Your task to perform on an android device: Check the news Image 0: 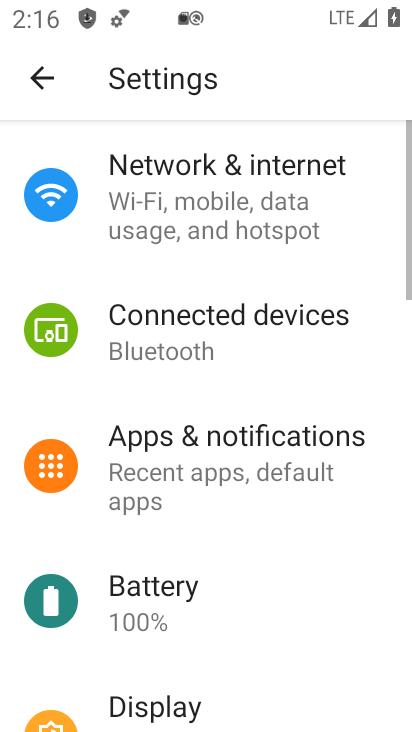
Step 0: press home button
Your task to perform on an android device: Check the news Image 1: 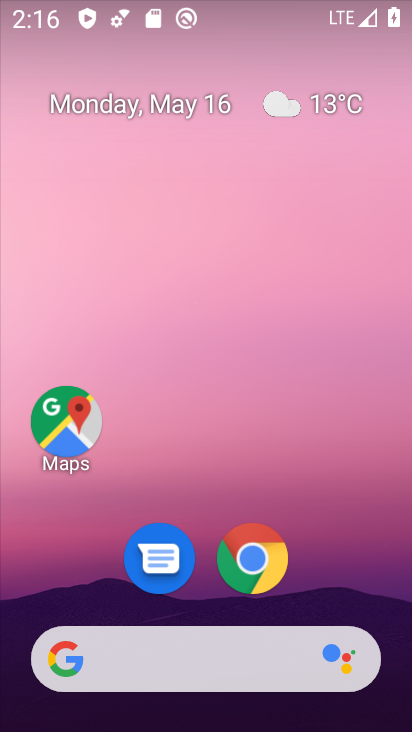
Step 1: click (223, 642)
Your task to perform on an android device: Check the news Image 2: 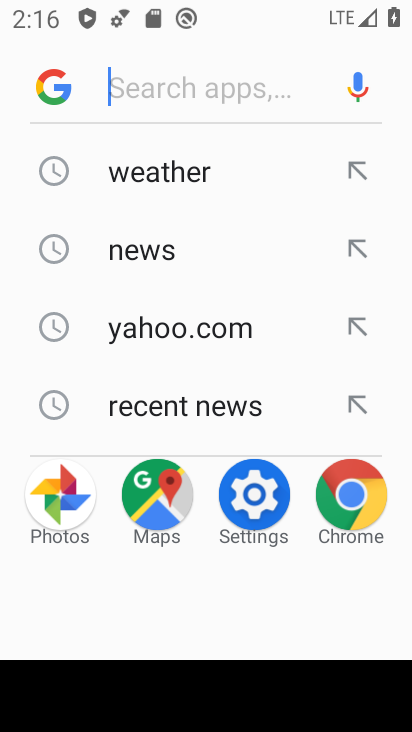
Step 2: click (186, 246)
Your task to perform on an android device: Check the news Image 3: 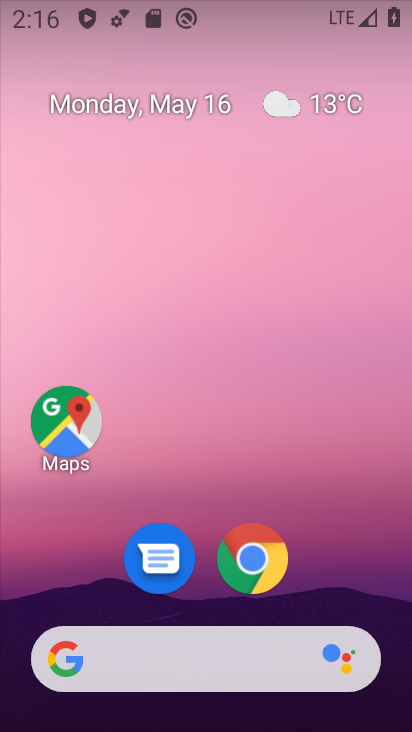
Step 3: task complete